Your task to perform on an android device: check out phone information Image 0: 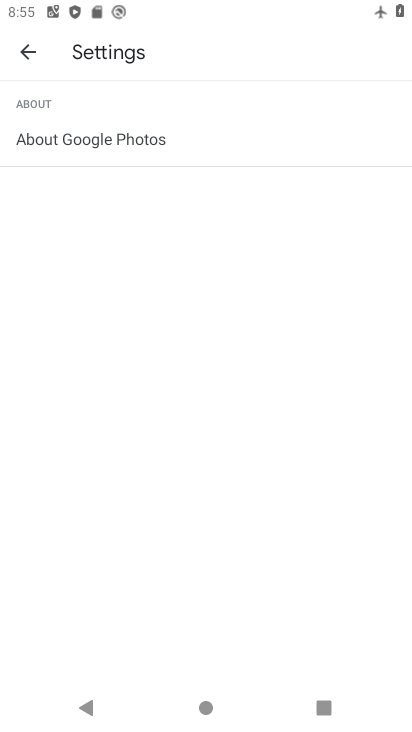
Step 0: press home button
Your task to perform on an android device: check out phone information Image 1: 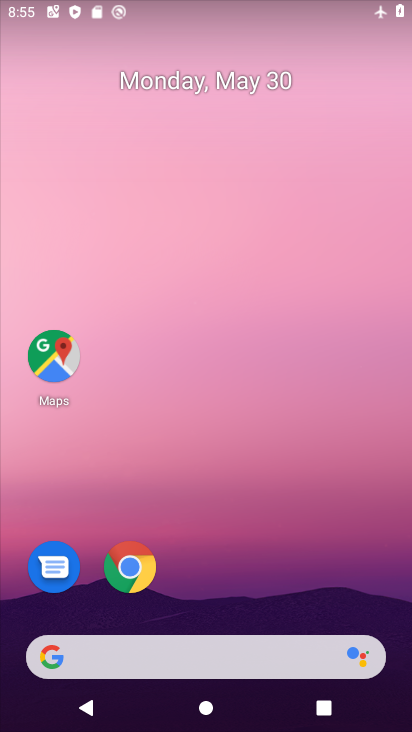
Step 1: drag from (228, 606) to (198, 95)
Your task to perform on an android device: check out phone information Image 2: 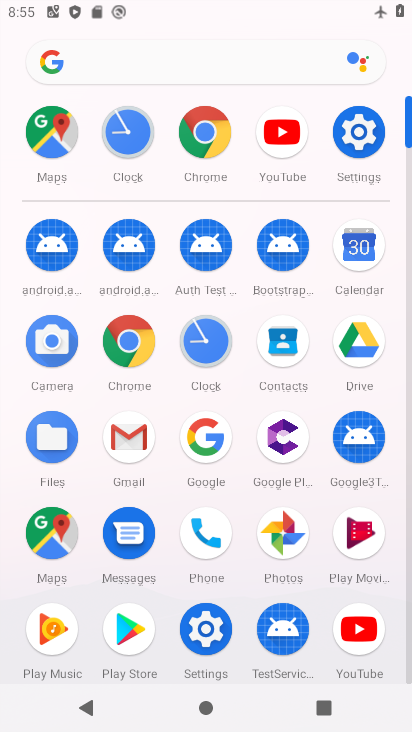
Step 2: click (376, 139)
Your task to perform on an android device: check out phone information Image 3: 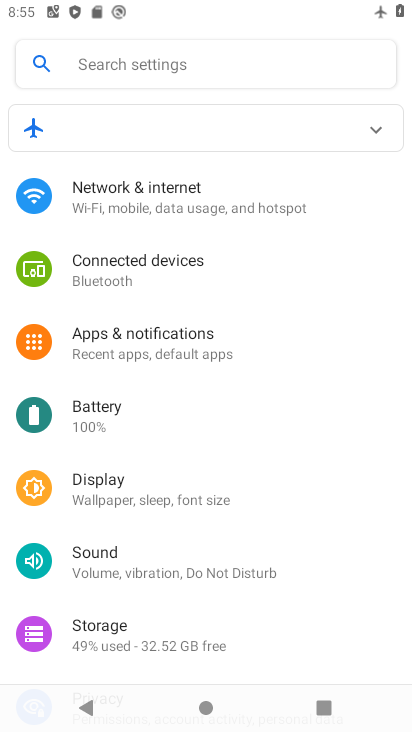
Step 3: drag from (187, 629) to (223, 113)
Your task to perform on an android device: check out phone information Image 4: 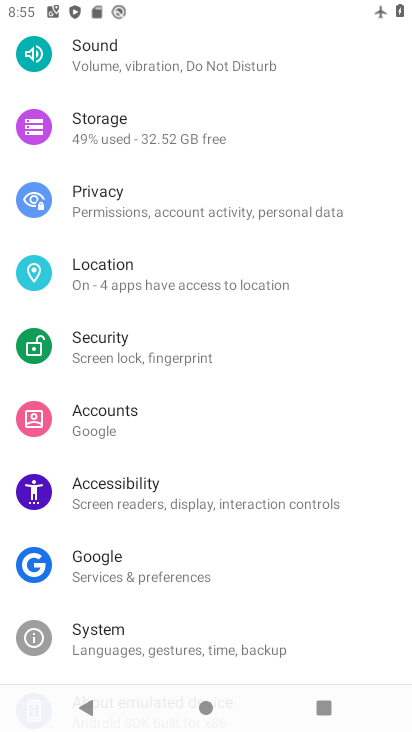
Step 4: drag from (157, 581) to (153, 178)
Your task to perform on an android device: check out phone information Image 5: 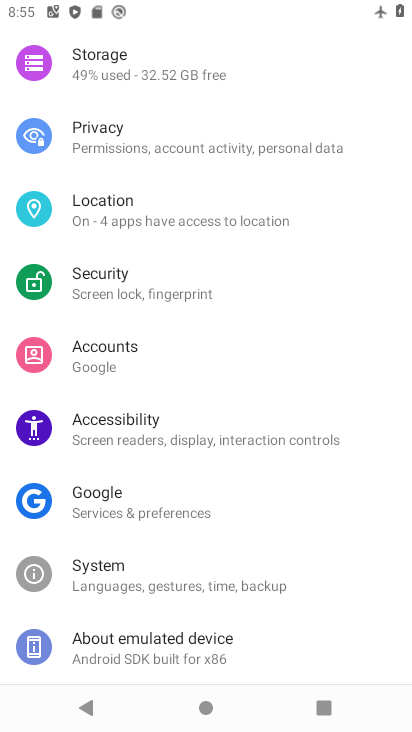
Step 5: click (183, 632)
Your task to perform on an android device: check out phone information Image 6: 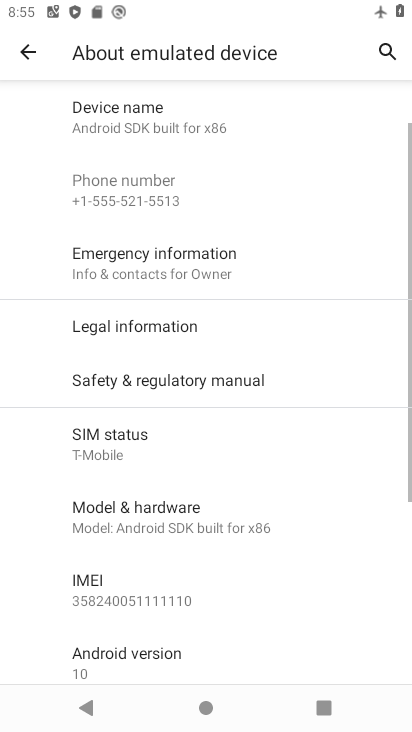
Step 6: task complete